Your task to perform on an android device: Open the stopwatch Image 0: 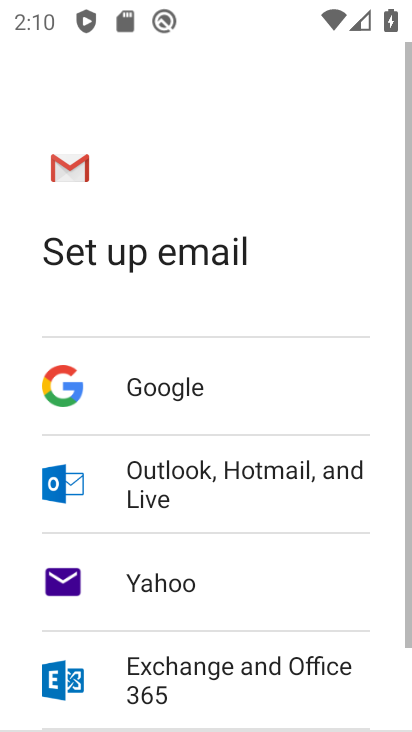
Step 0: press home button
Your task to perform on an android device: Open the stopwatch Image 1: 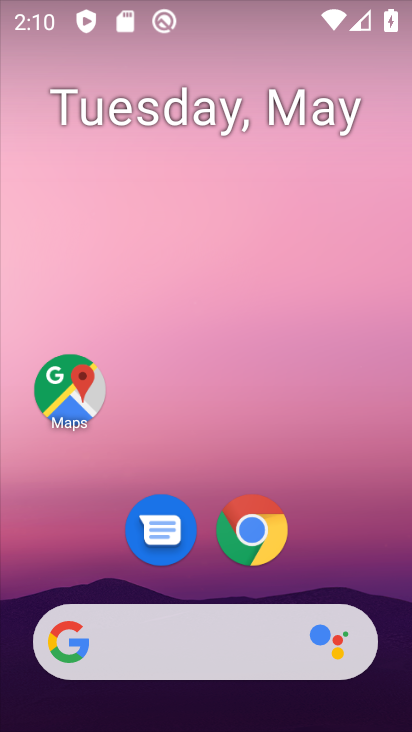
Step 1: drag from (201, 591) to (99, 20)
Your task to perform on an android device: Open the stopwatch Image 2: 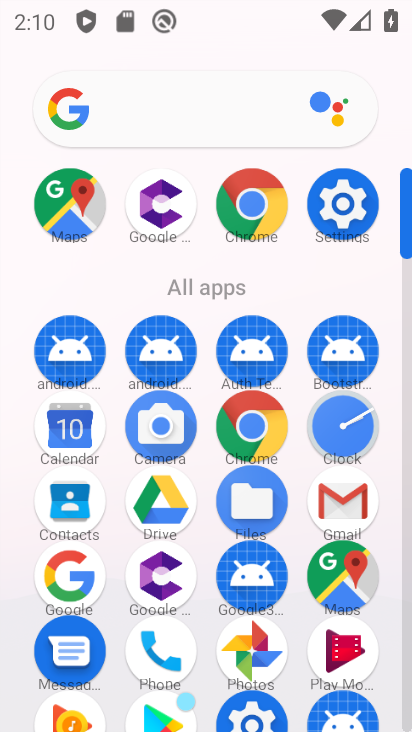
Step 2: click (354, 423)
Your task to perform on an android device: Open the stopwatch Image 3: 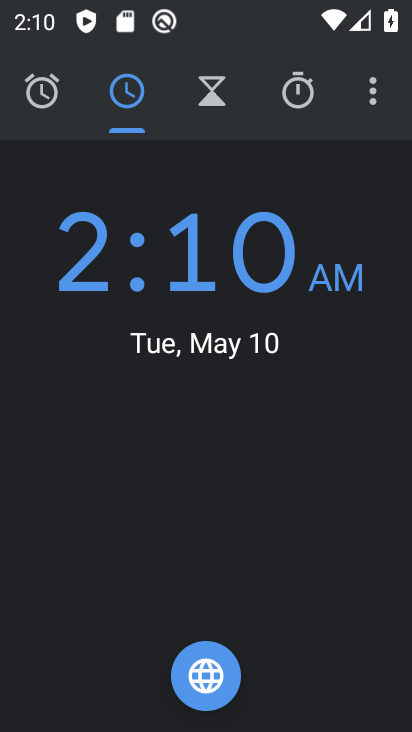
Step 3: click (302, 95)
Your task to perform on an android device: Open the stopwatch Image 4: 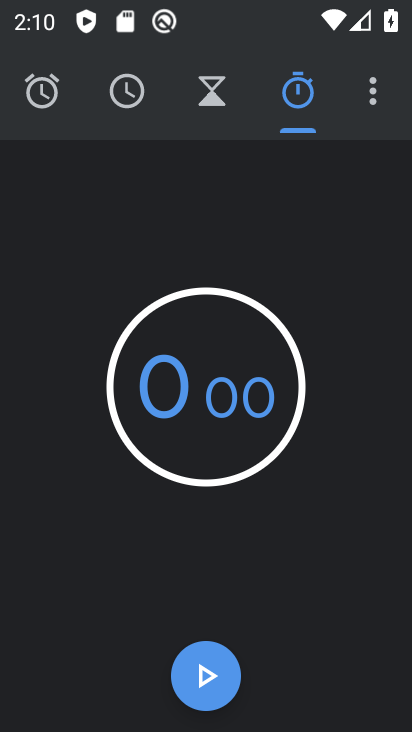
Step 4: click (233, 679)
Your task to perform on an android device: Open the stopwatch Image 5: 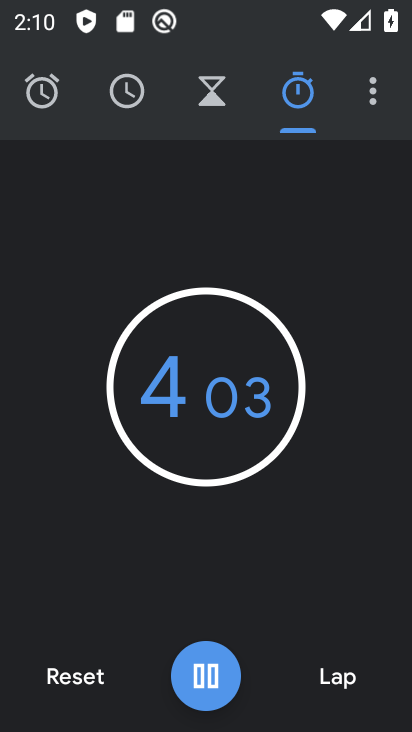
Step 5: click (207, 674)
Your task to perform on an android device: Open the stopwatch Image 6: 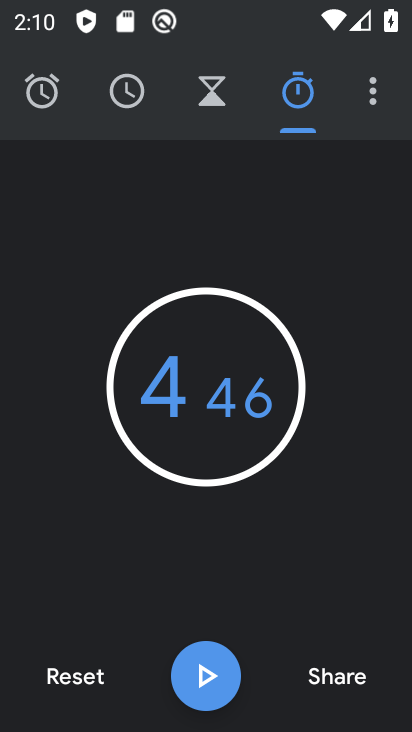
Step 6: task complete